Your task to perform on an android device: When is my next meeting? Image 0: 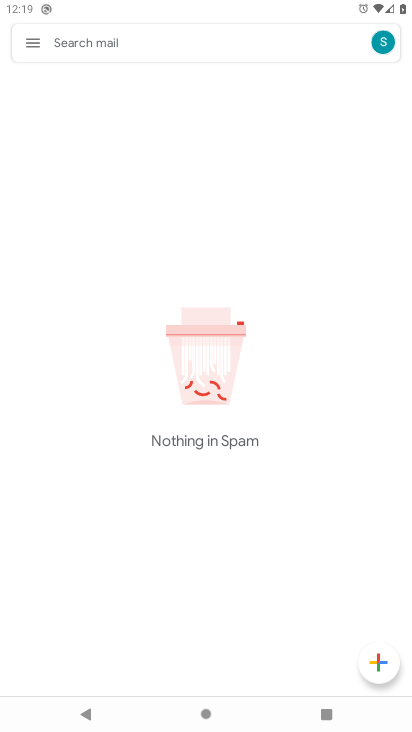
Step 0: press home button
Your task to perform on an android device: When is my next meeting? Image 1: 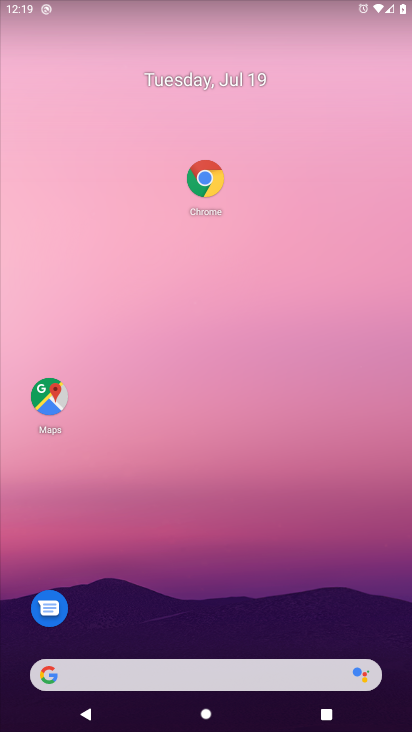
Step 1: drag from (99, 584) to (258, 40)
Your task to perform on an android device: When is my next meeting? Image 2: 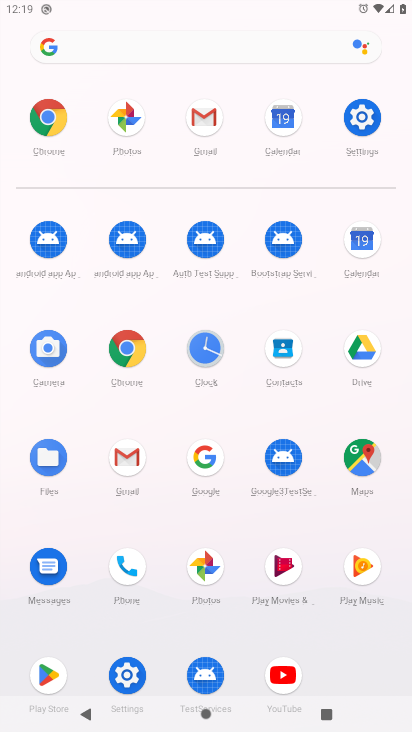
Step 2: click (353, 256)
Your task to perform on an android device: When is my next meeting? Image 3: 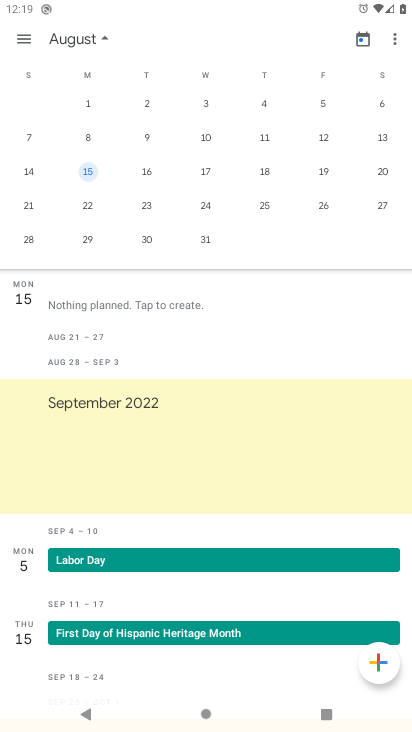
Step 3: drag from (11, 110) to (249, 75)
Your task to perform on an android device: When is my next meeting? Image 4: 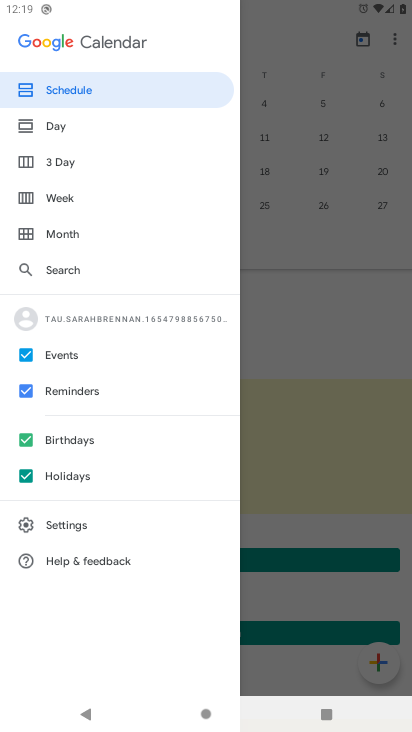
Step 4: click (299, 332)
Your task to perform on an android device: When is my next meeting? Image 5: 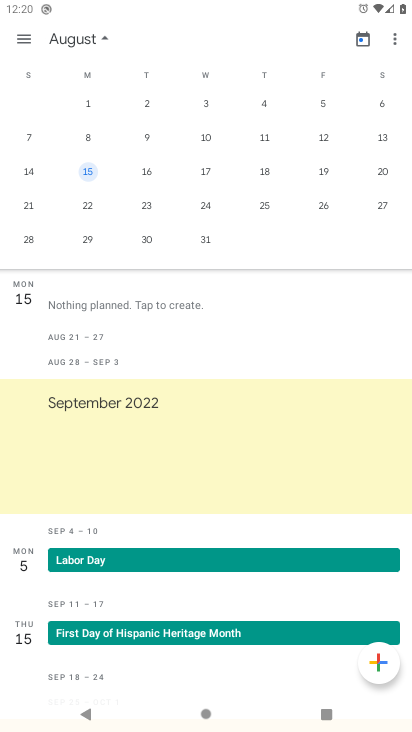
Step 5: drag from (54, 109) to (269, 90)
Your task to perform on an android device: When is my next meeting? Image 6: 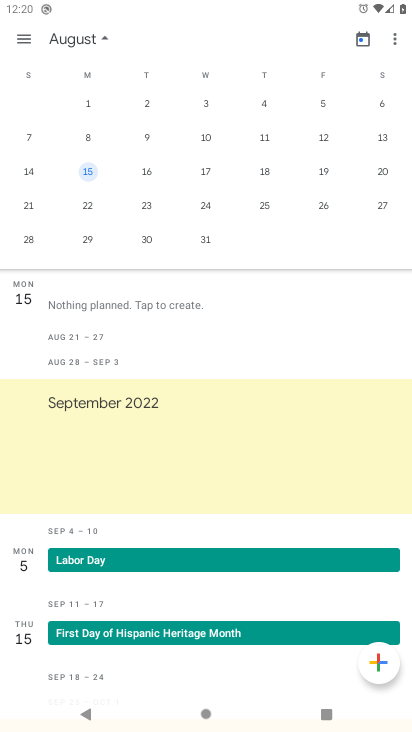
Step 6: drag from (27, 101) to (279, 85)
Your task to perform on an android device: When is my next meeting? Image 7: 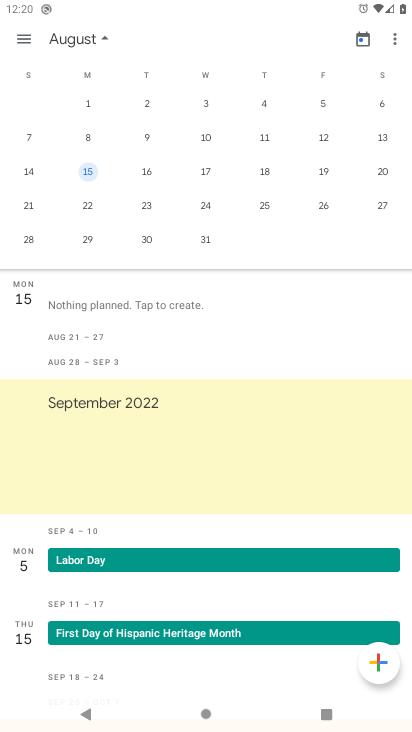
Step 7: click (305, 61)
Your task to perform on an android device: When is my next meeting? Image 8: 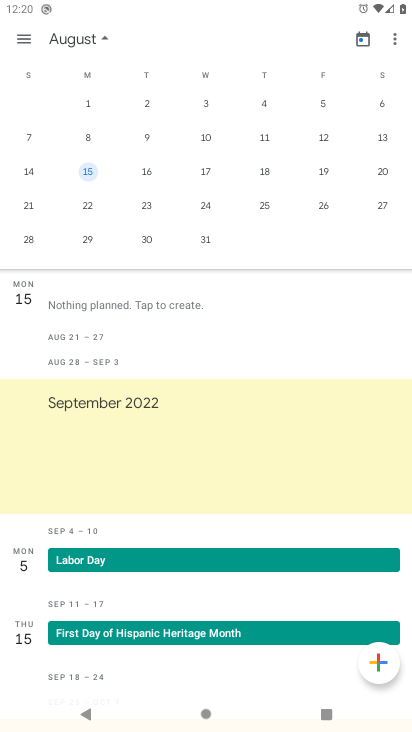
Step 8: click (396, 151)
Your task to perform on an android device: When is my next meeting? Image 9: 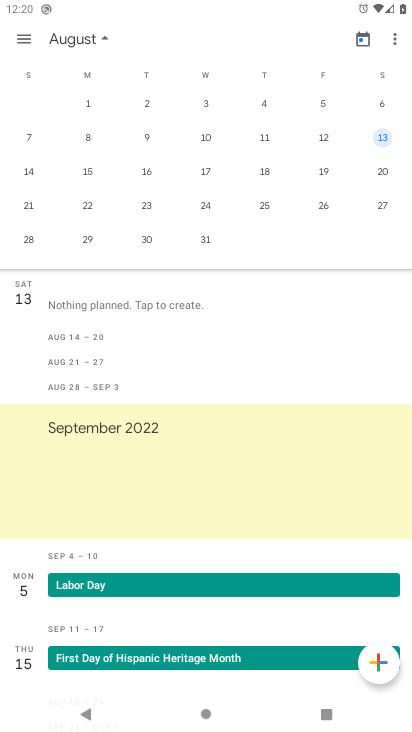
Step 9: drag from (6, 135) to (397, 185)
Your task to perform on an android device: When is my next meeting? Image 10: 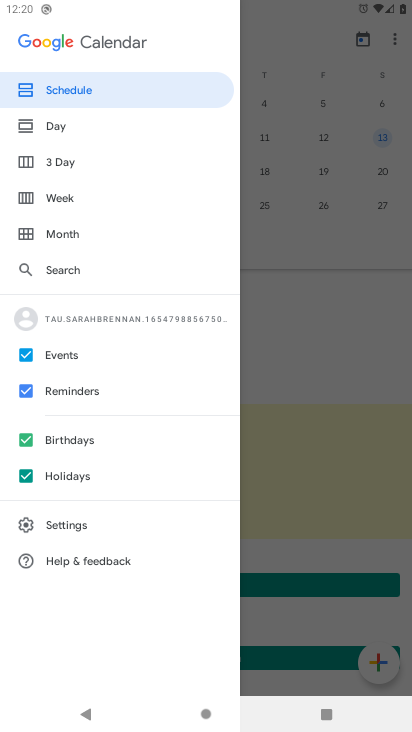
Step 10: click (300, 254)
Your task to perform on an android device: When is my next meeting? Image 11: 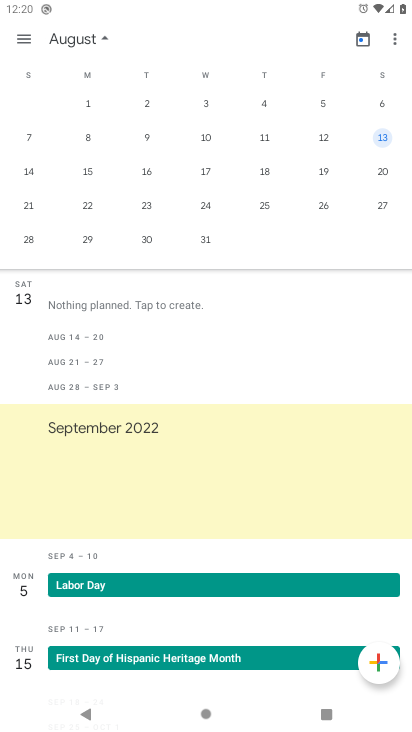
Step 11: task complete